Your task to perform on an android device: Go to notification settings Image 0: 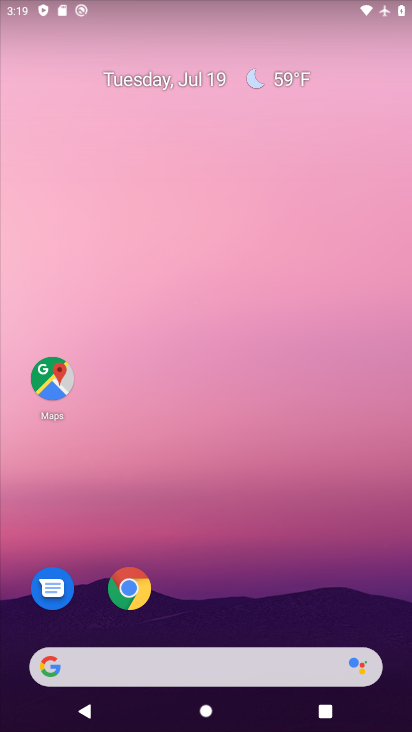
Step 0: press home button
Your task to perform on an android device: Go to notification settings Image 1: 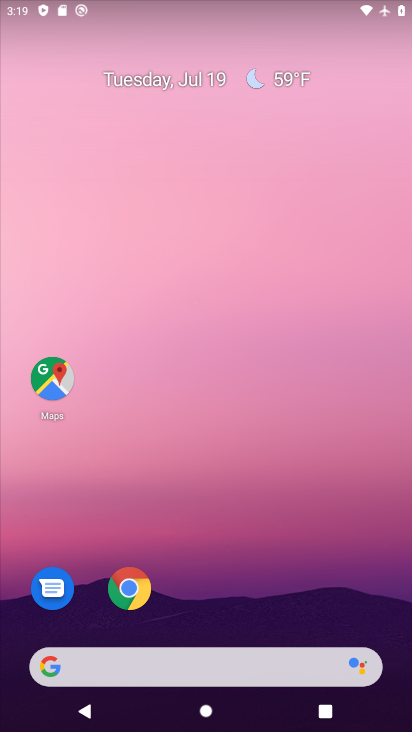
Step 1: drag from (251, 595) to (268, 0)
Your task to perform on an android device: Go to notification settings Image 2: 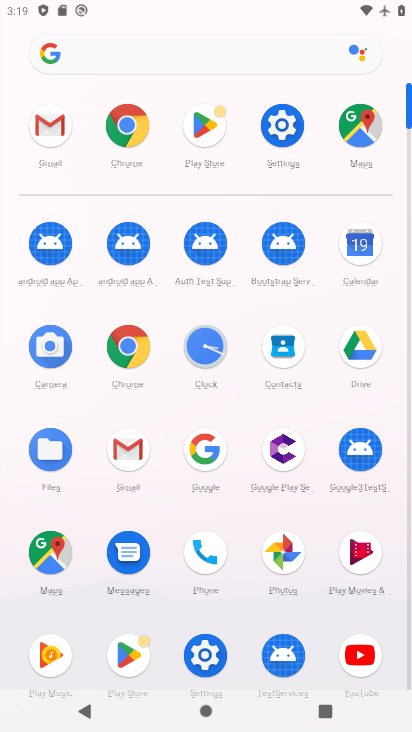
Step 2: click (291, 118)
Your task to perform on an android device: Go to notification settings Image 3: 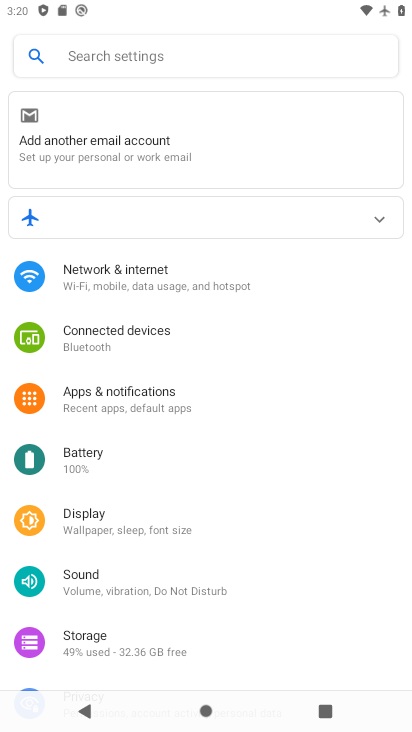
Step 3: click (92, 399)
Your task to perform on an android device: Go to notification settings Image 4: 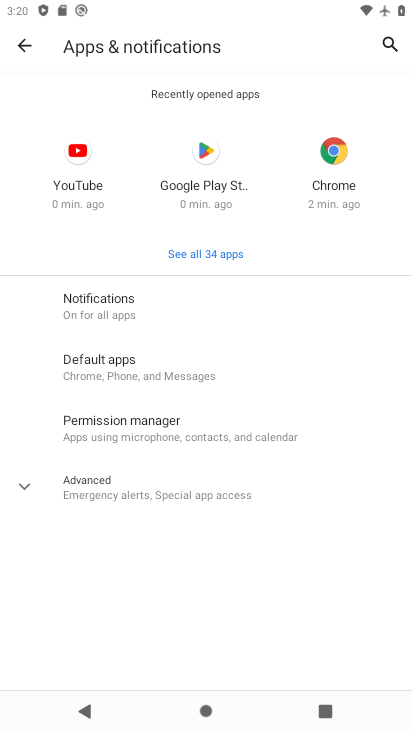
Step 4: click (97, 299)
Your task to perform on an android device: Go to notification settings Image 5: 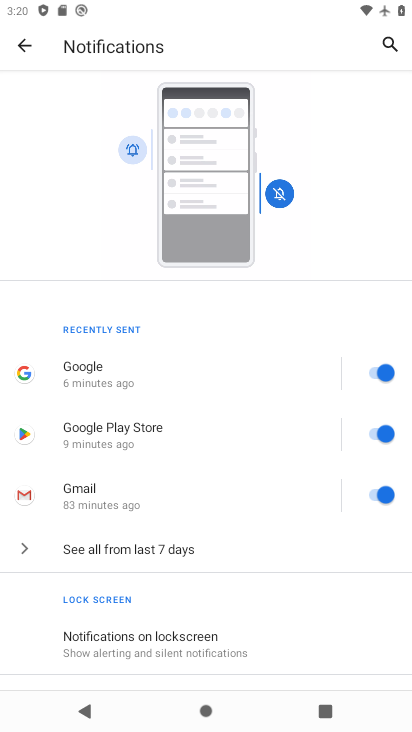
Step 5: click (118, 638)
Your task to perform on an android device: Go to notification settings Image 6: 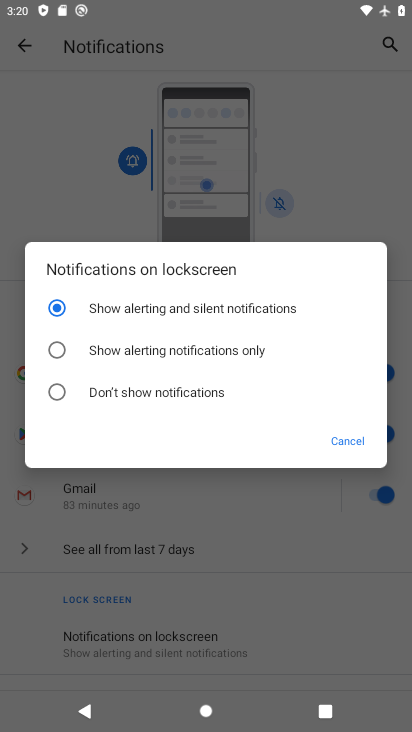
Step 6: click (332, 609)
Your task to perform on an android device: Go to notification settings Image 7: 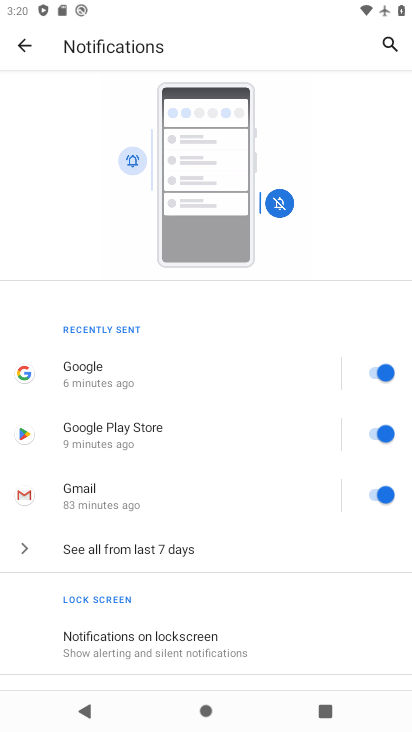
Step 7: task complete